Your task to perform on an android device: open the mobile data screen to see how much data has been used Image 0: 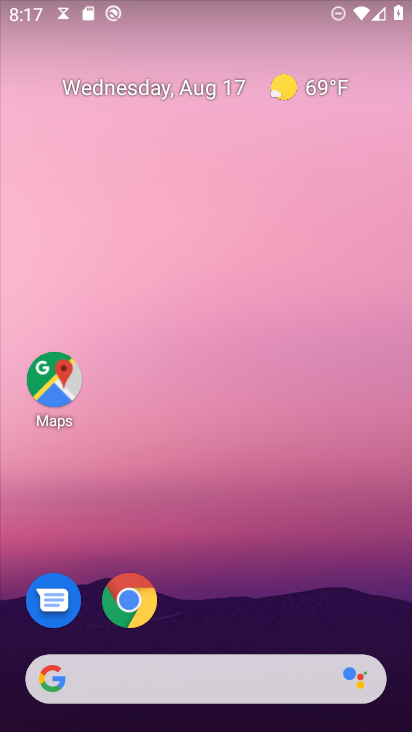
Step 0: press home button
Your task to perform on an android device: open the mobile data screen to see how much data has been used Image 1: 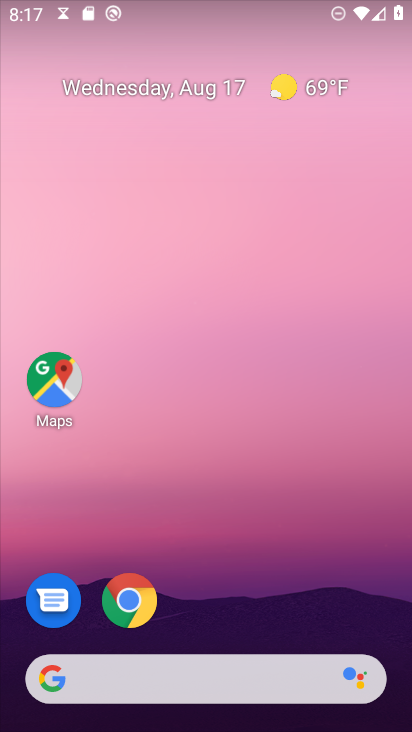
Step 1: drag from (287, 569) to (185, 15)
Your task to perform on an android device: open the mobile data screen to see how much data has been used Image 2: 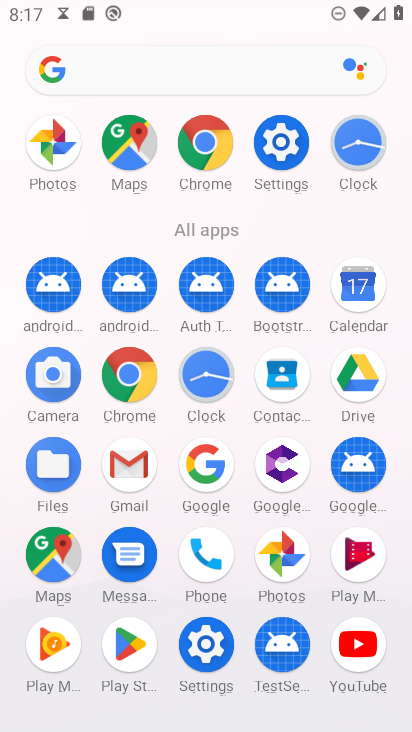
Step 2: click (272, 152)
Your task to perform on an android device: open the mobile data screen to see how much data has been used Image 3: 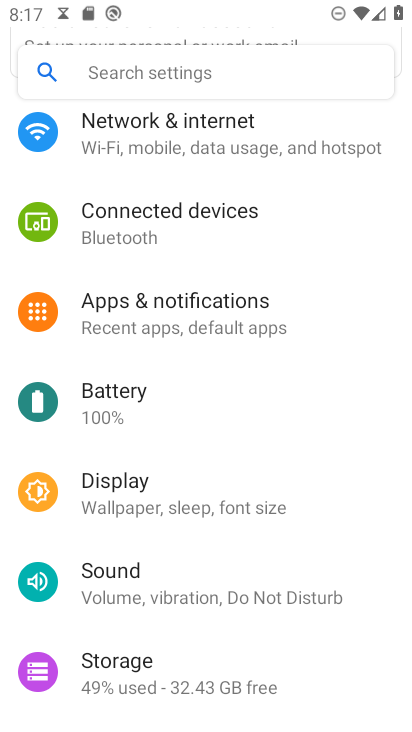
Step 3: click (162, 127)
Your task to perform on an android device: open the mobile data screen to see how much data has been used Image 4: 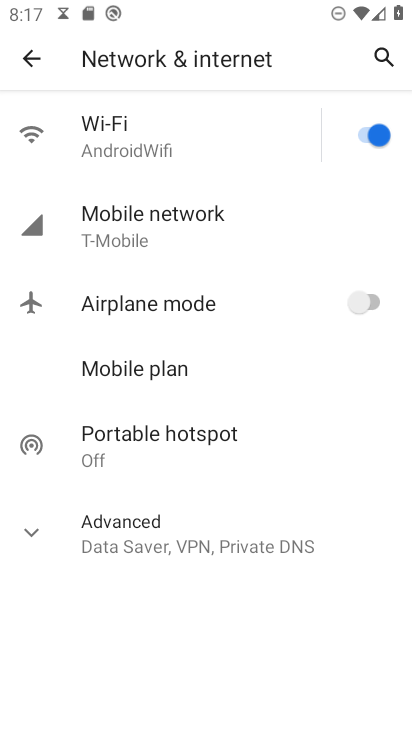
Step 4: click (167, 217)
Your task to perform on an android device: open the mobile data screen to see how much data has been used Image 5: 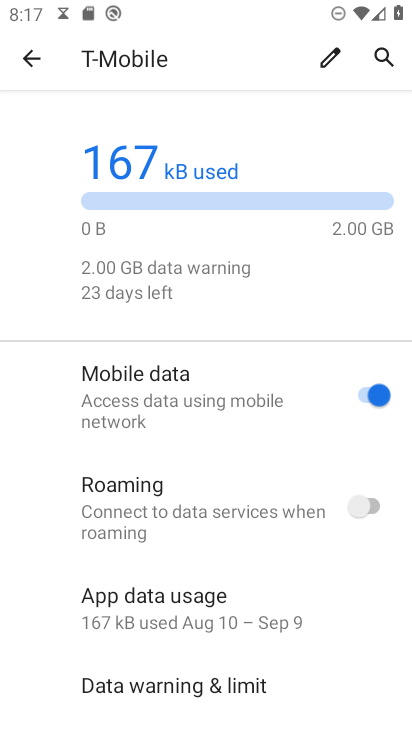
Step 5: task complete